Your task to perform on an android device: Is it going to rain today? Image 0: 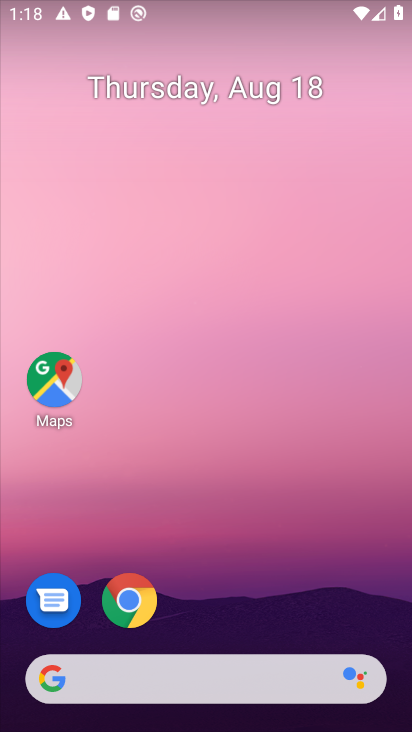
Step 0: click (114, 682)
Your task to perform on an android device: Is it going to rain today? Image 1: 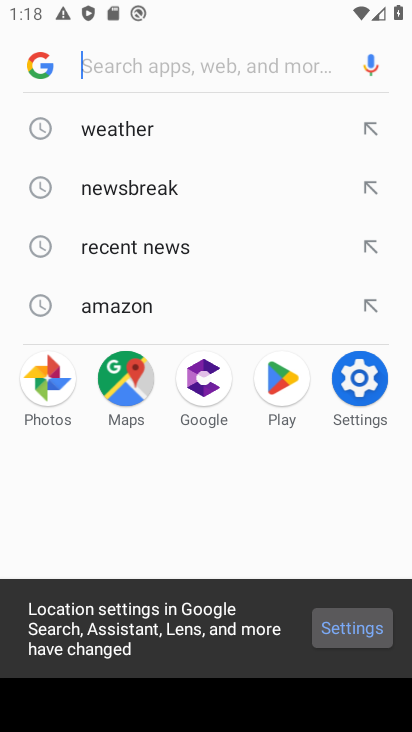
Step 1: click (92, 123)
Your task to perform on an android device: Is it going to rain today? Image 2: 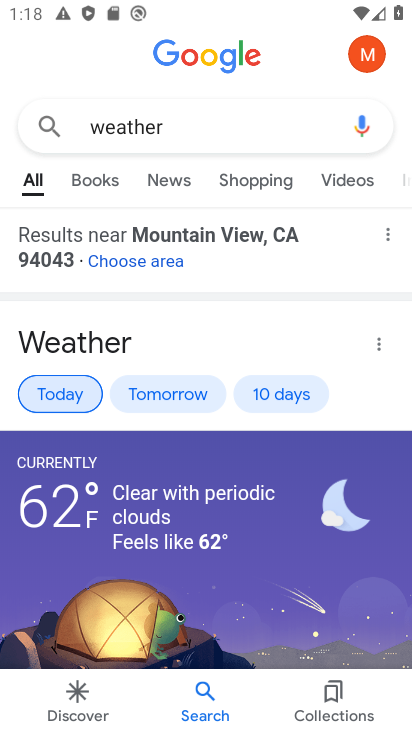
Step 2: task complete